Your task to perform on an android device: delete a single message in the gmail app Image 0: 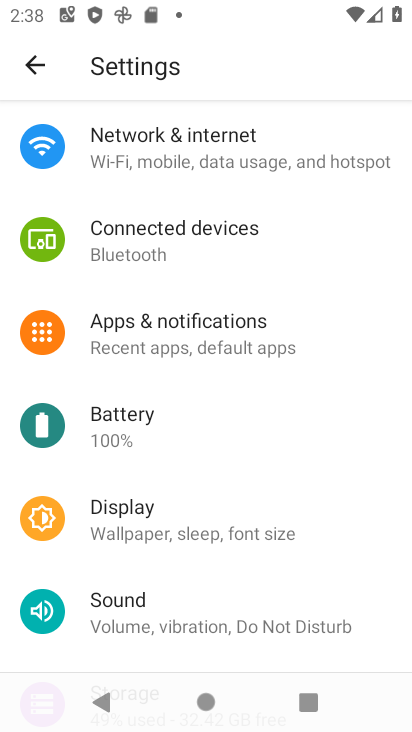
Step 0: press home button
Your task to perform on an android device: delete a single message in the gmail app Image 1: 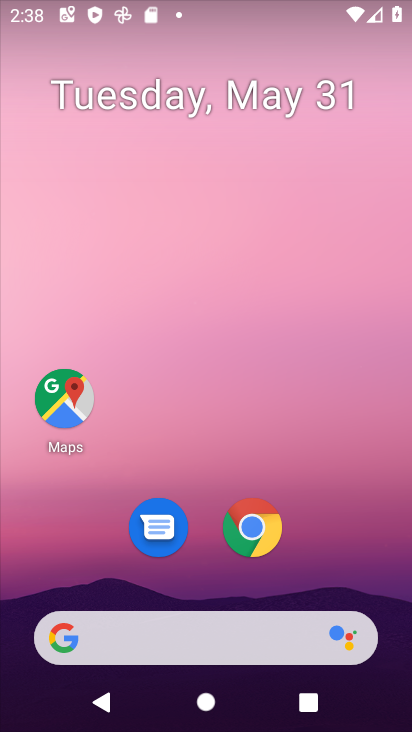
Step 1: drag from (328, 515) to (284, 104)
Your task to perform on an android device: delete a single message in the gmail app Image 2: 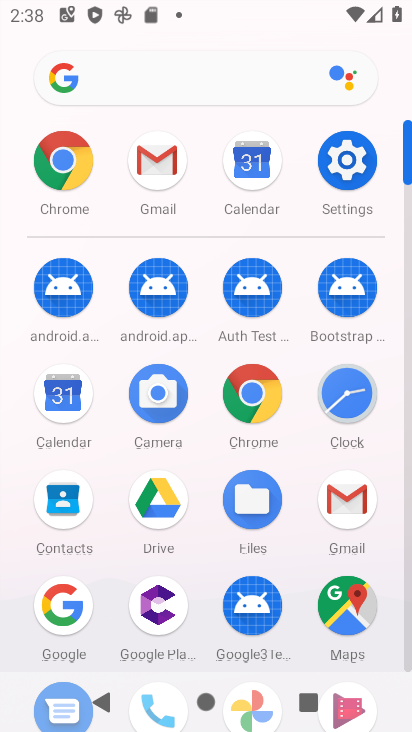
Step 2: click (167, 161)
Your task to perform on an android device: delete a single message in the gmail app Image 3: 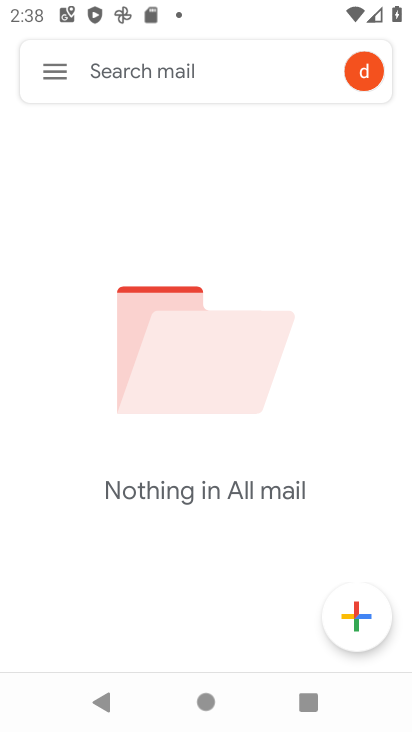
Step 3: task complete